Your task to perform on an android device: Go to display settings Image 0: 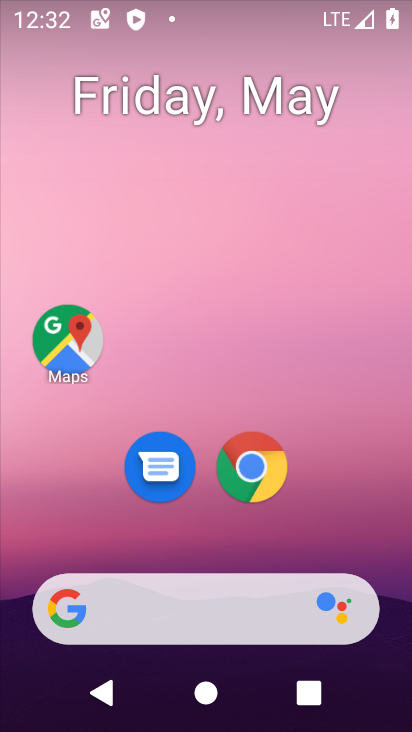
Step 0: drag from (333, 527) to (197, 2)
Your task to perform on an android device: Go to display settings Image 1: 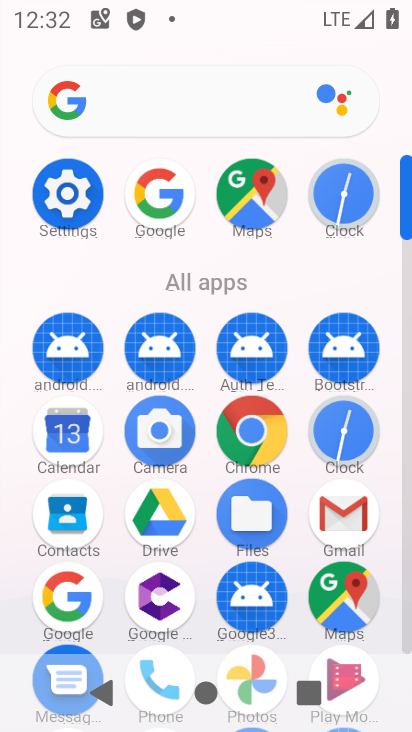
Step 1: click (67, 194)
Your task to perform on an android device: Go to display settings Image 2: 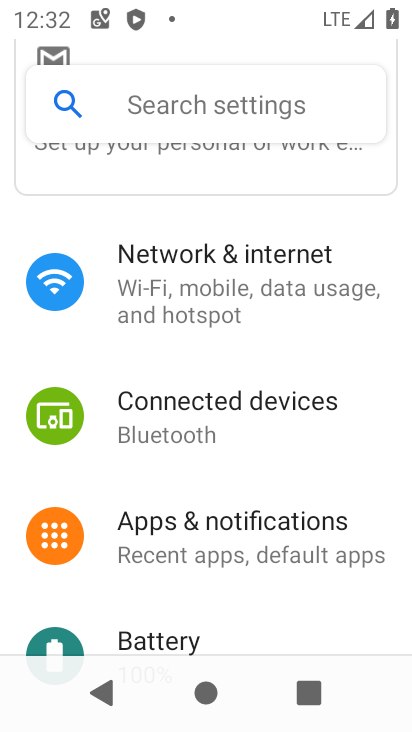
Step 2: drag from (162, 460) to (164, 331)
Your task to perform on an android device: Go to display settings Image 3: 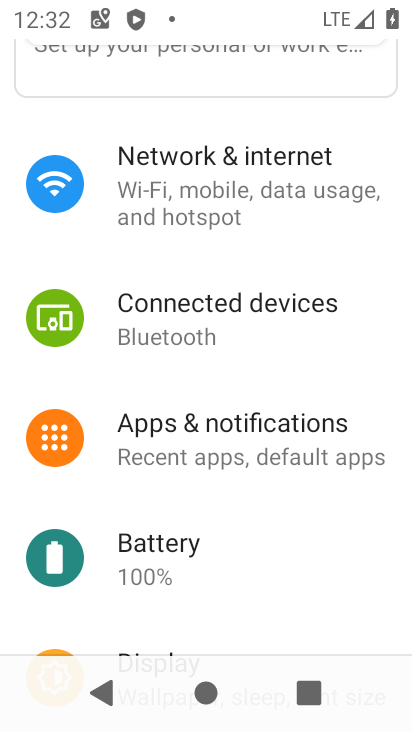
Step 3: drag from (131, 493) to (216, 321)
Your task to perform on an android device: Go to display settings Image 4: 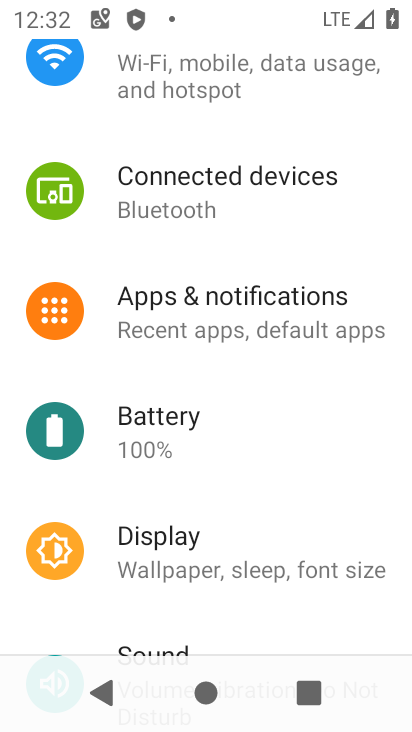
Step 4: click (156, 544)
Your task to perform on an android device: Go to display settings Image 5: 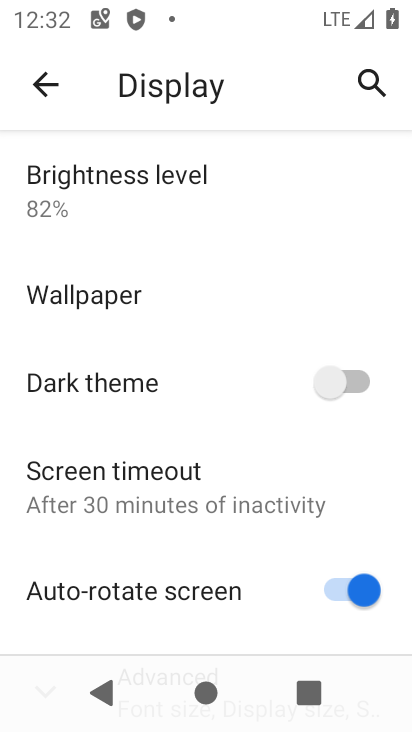
Step 5: task complete